Your task to perform on an android device: Search for Italian restaurants on Maps Image 0: 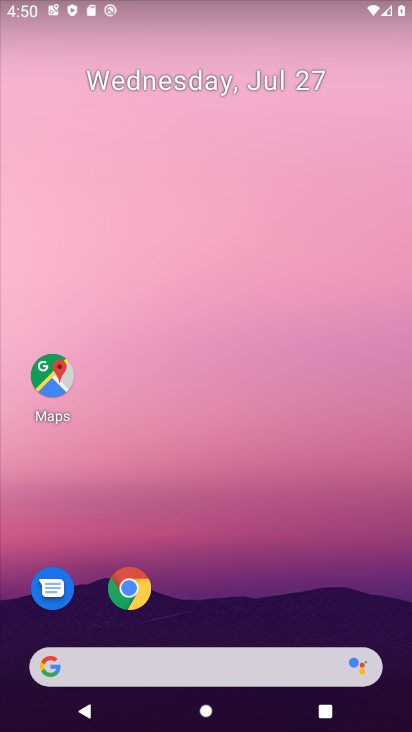
Step 0: drag from (257, 718) to (251, 163)
Your task to perform on an android device: Search for Italian restaurants on Maps Image 1: 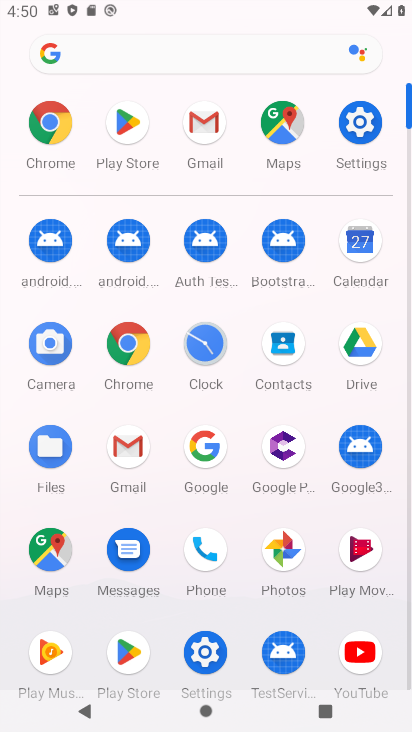
Step 1: click (46, 542)
Your task to perform on an android device: Search for Italian restaurants on Maps Image 2: 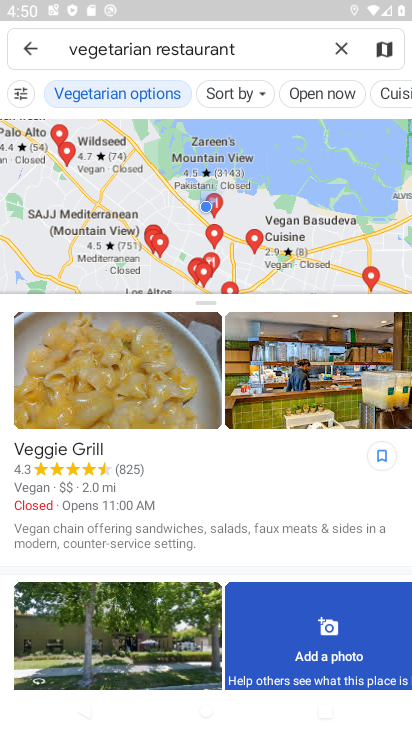
Step 2: click (341, 50)
Your task to perform on an android device: Search for Italian restaurants on Maps Image 3: 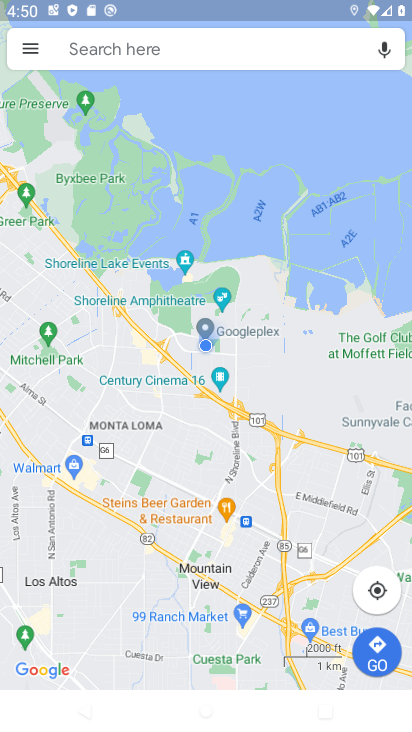
Step 3: click (201, 48)
Your task to perform on an android device: Search for Italian restaurants on Maps Image 4: 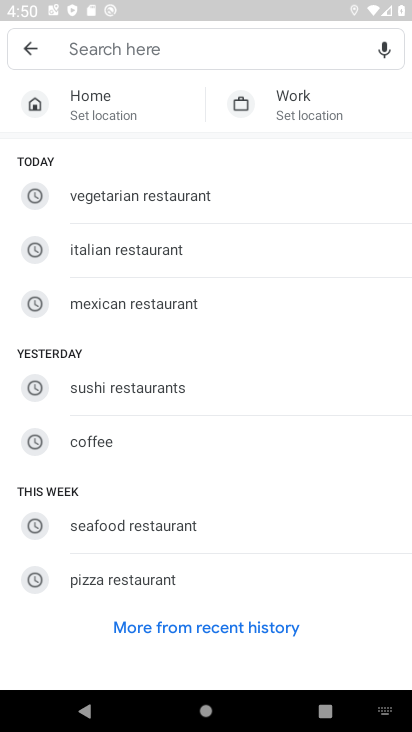
Step 4: type "Italian restaurants"
Your task to perform on an android device: Search for Italian restaurants on Maps Image 5: 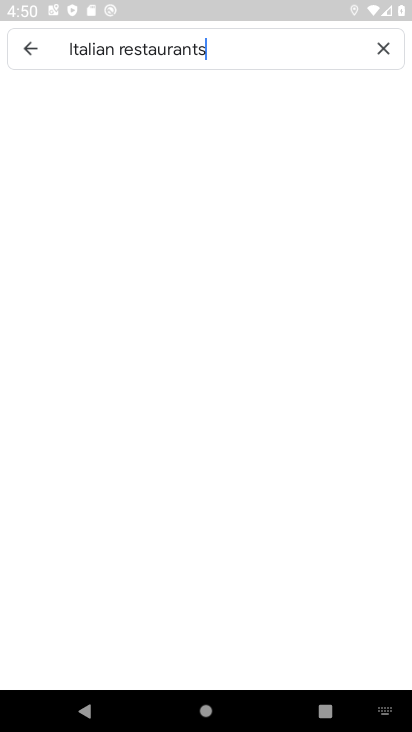
Step 5: type ""
Your task to perform on an android device: Search for Italian restaurants on Maps Image 6: 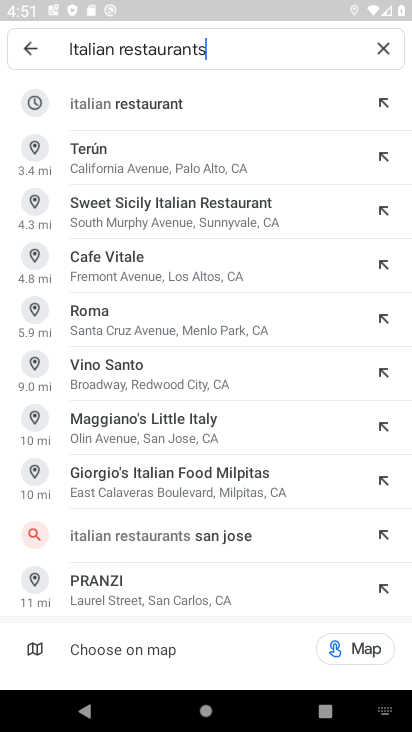
Step 6: click (120, 104)
Your task to perform on an android device: Search for Italian restaurants on Maps Image 7: 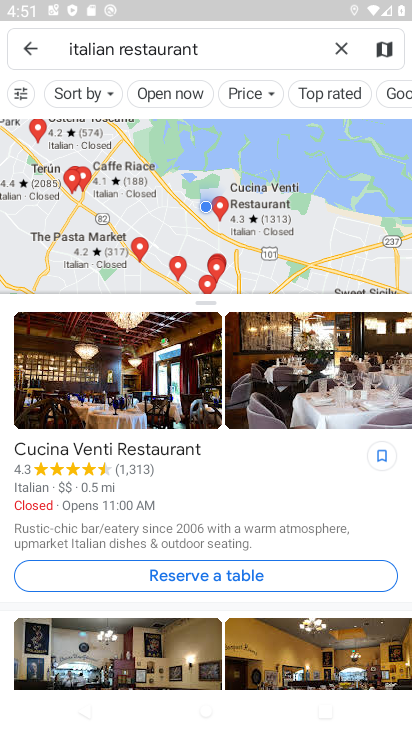
Step 7: task complete